Your task to perform on an android device: Search for seafood restaurants on Google Maps Image 0: 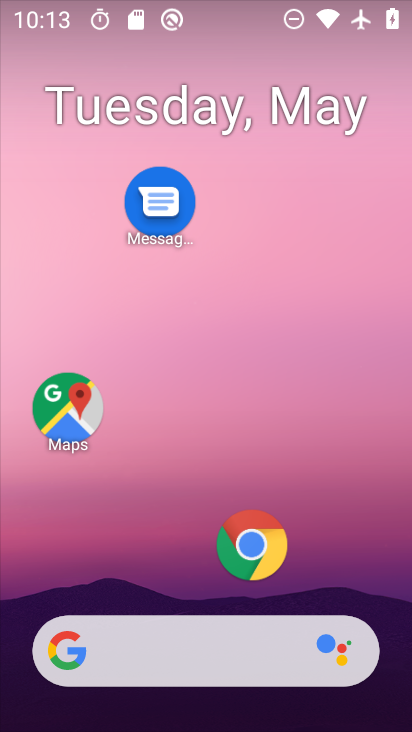
Step 0: click (85, 421)
Your task to perform on an android device: Search for seafood restaurants on Google Maps Image 1: 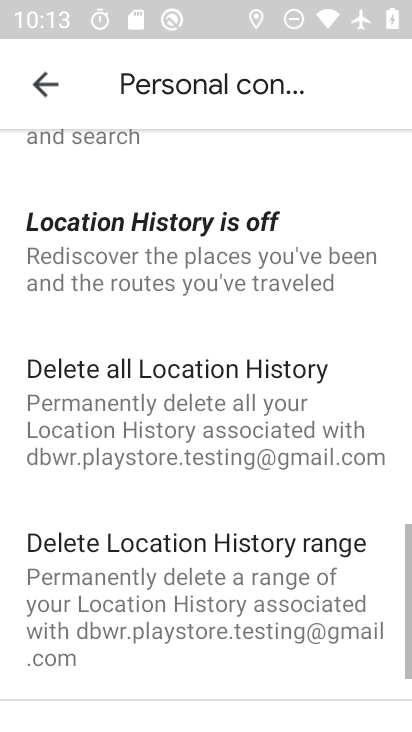
Step 1: click (39, 79)
Your task to perform on an android device: Search for seafood restaurants on Google Maps Image 2: 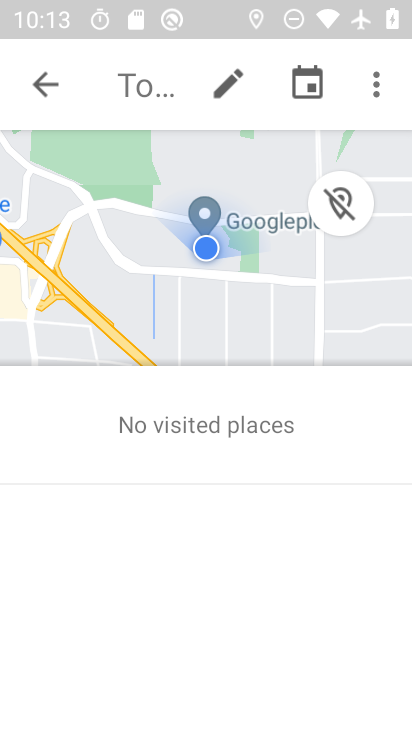
Step 2: click (48, 82)
Your task to perform on an android device: Search for seafood restaurants on Google Maps Image 3: 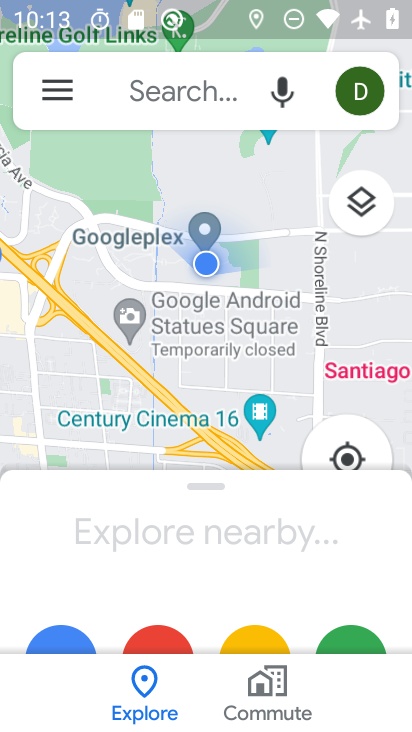
Step 3: click (201, 99)
Your task to perform on an android device: Search for seafood restaurants on Google Maps Image 4: 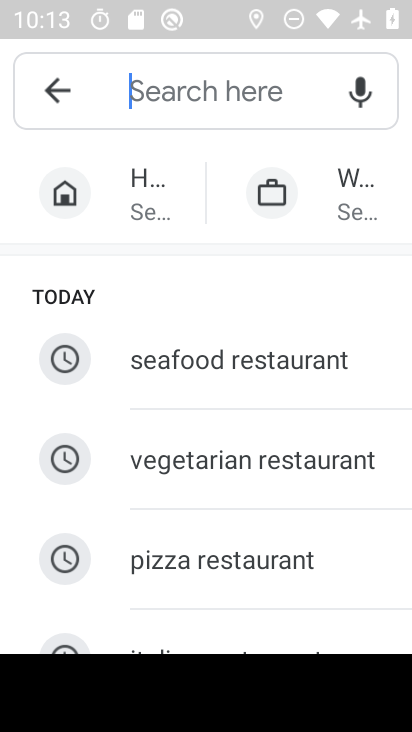
Step 4: click (191, 381)
Your task to perform on an android device: Search for seafood restaurants on Google Maps Image 5: 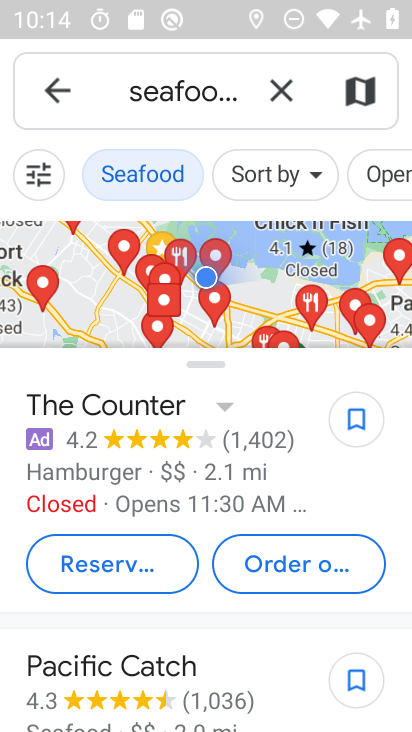
Step 5: task complete